Your task to perform on an android device: Check the news Image 0: 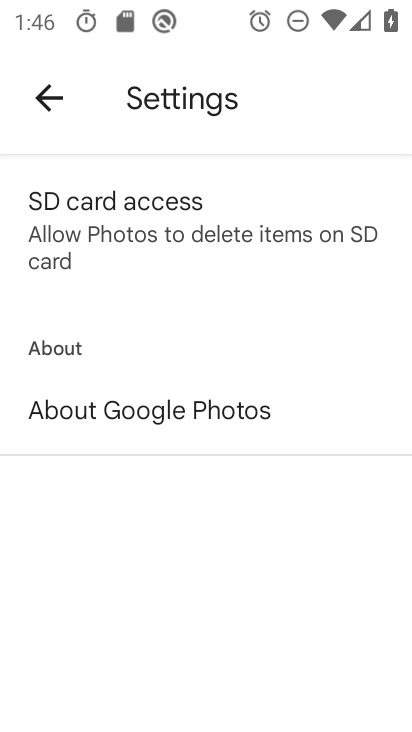
Step 0: task complete